Your task to perform on an android device: Play the last video I watched on Youtube Image 0: 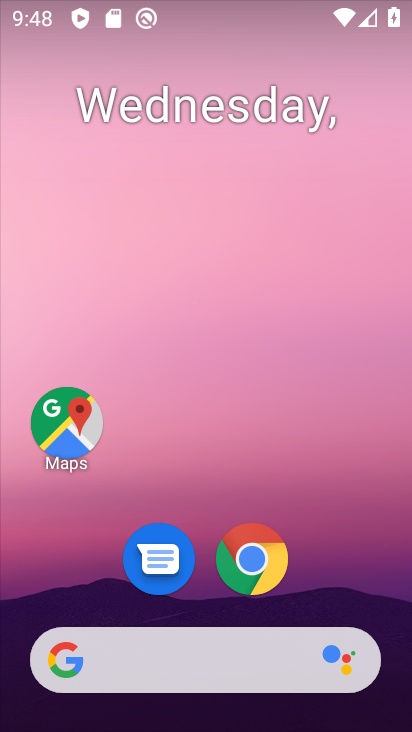
Step 0: drag from (380, 553) to (337, 3)
Your task to perform on an android device: Play the last video I watched on Youtube Image 1: 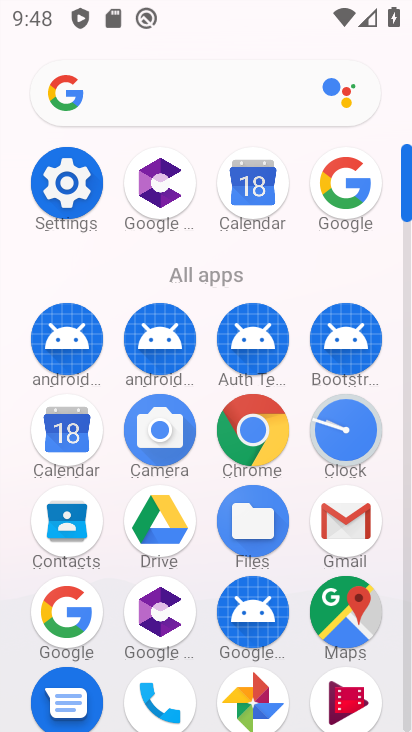
Step 1: drag from (396, 633) to (379, 198)
Your task to perform on an android device: Play the last video I watched on Youtube Image 2: 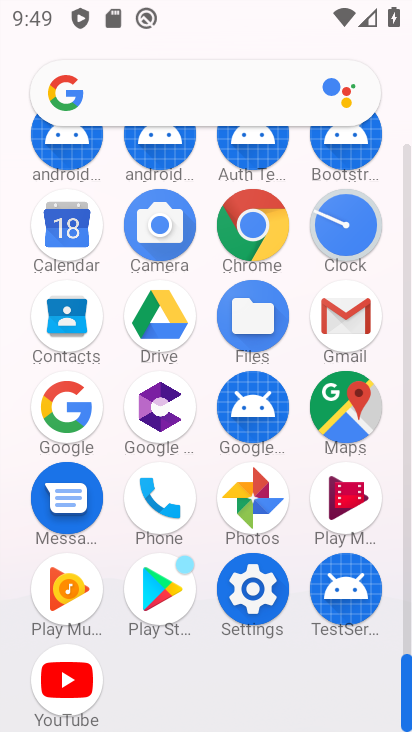
Step 2: click (61, 701)
Your task to perform on an android device: Play the last video I watched on Youtube Image 3: 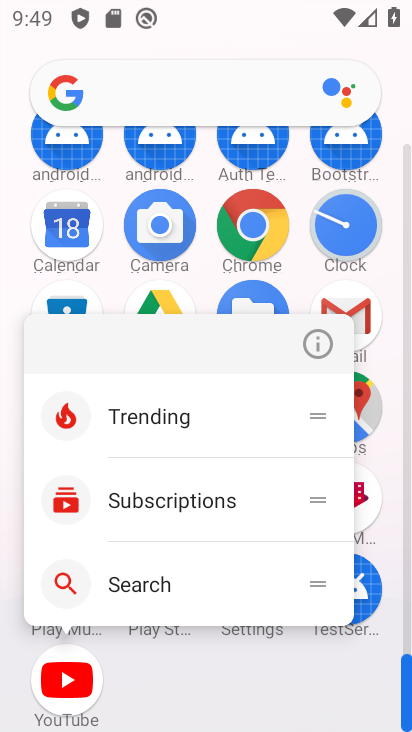
Step 3: click (61, 700)
Your task to perform on an android device: Play the last video I watched on Youtube Image 4: 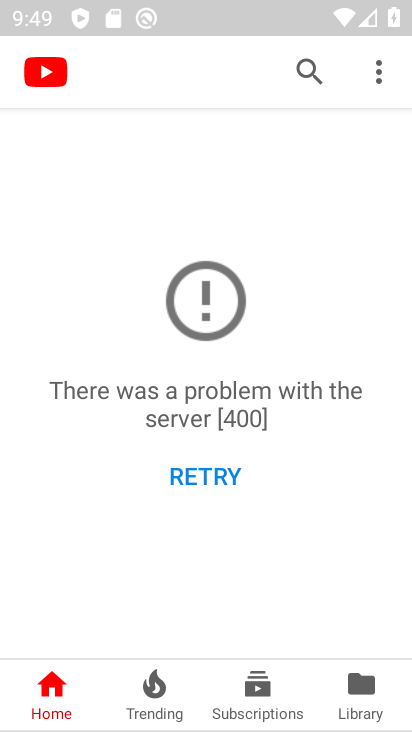
Step 4: click (362, 696)
Your task to perform on an android device: Play the last video I watched on Youtube Image 5: 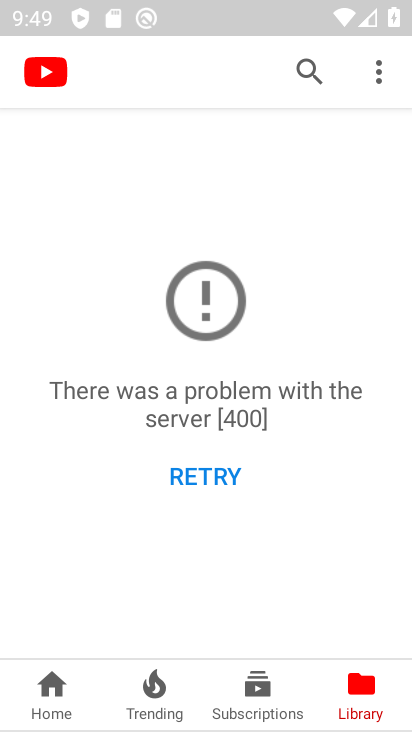
Step 5: click (179, 469)
Your task to perform on an android device: Play the last video I watched on Youtube Image 6: 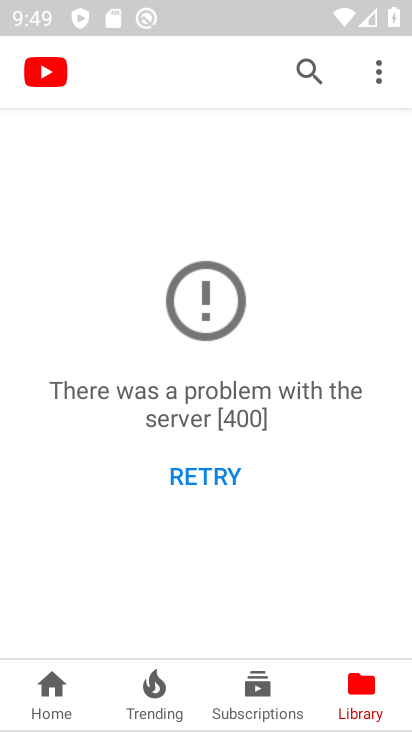
Step 6: task complete